Your task to perform on an android device: turn on airplane mode Image 0: 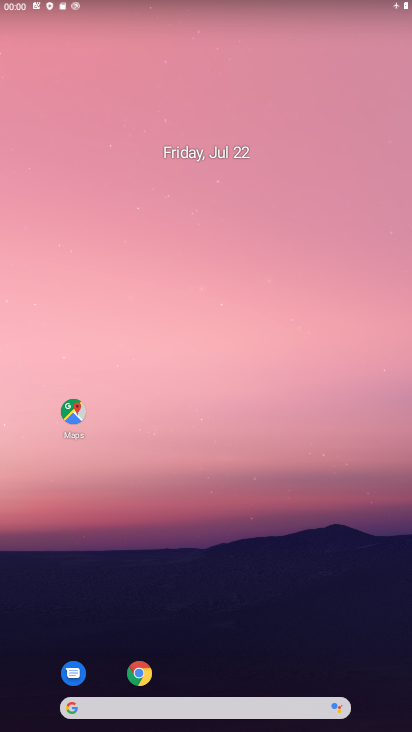
Step 0: drag from (228, 631) to (228, 219)
Your task to perform on an android device: turn on airplane mode Image 1: 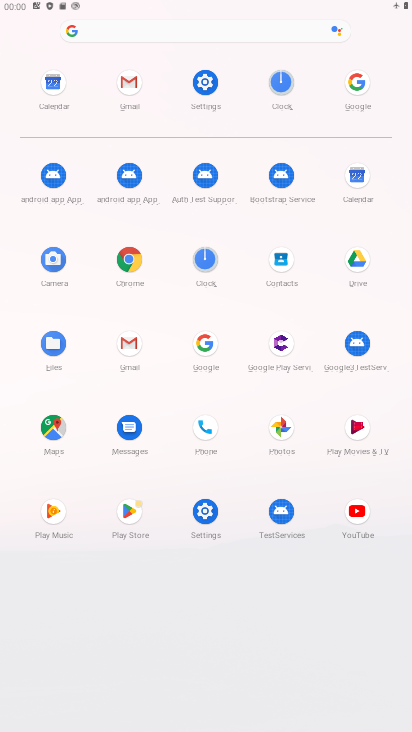
Step 1: click (188, 92)
Your task to perform on an android device: turn on airplane mode Image 2: 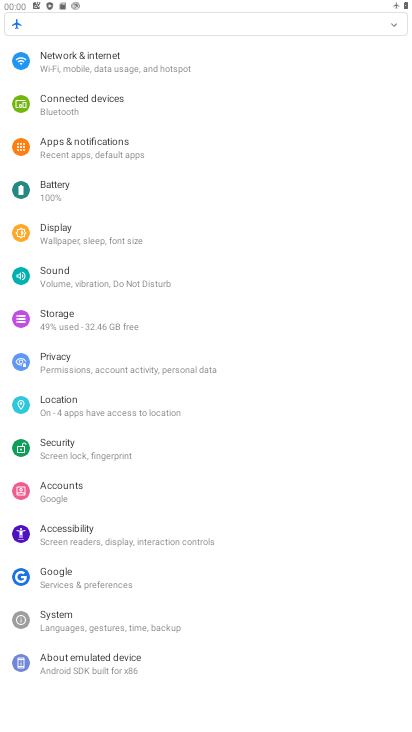
Step 2: click (97, 71)
Your task to perform on an android device: turn on airplane mode Image 3: 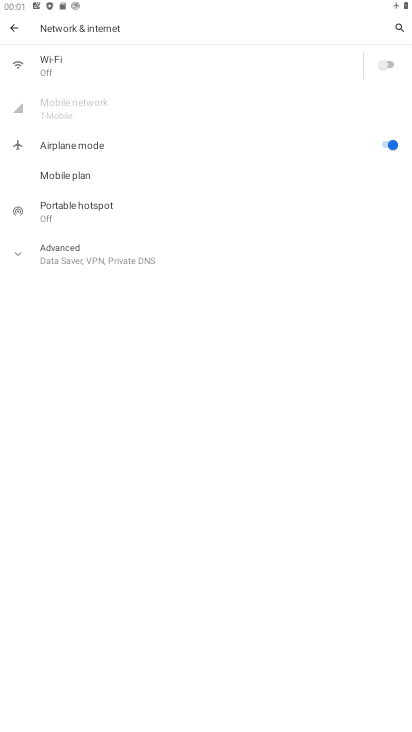
Step 3: task complete